Your task to perform on an android device: Open a new Chrome window Image 0: 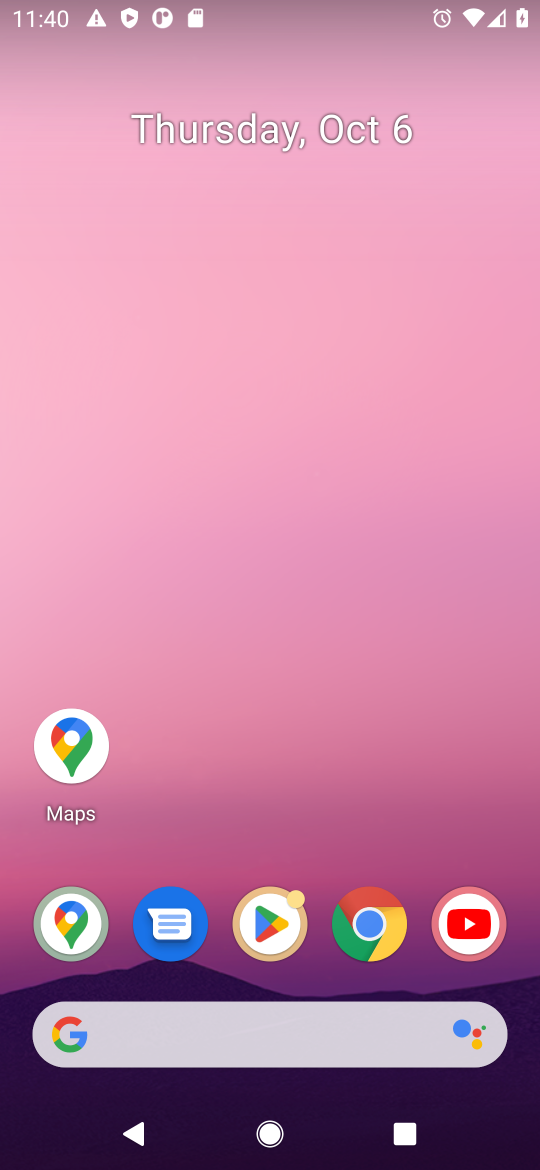
Step 0: click (362, 925)
Your task to perform on an android device: Open a new Chrome window Image 1: 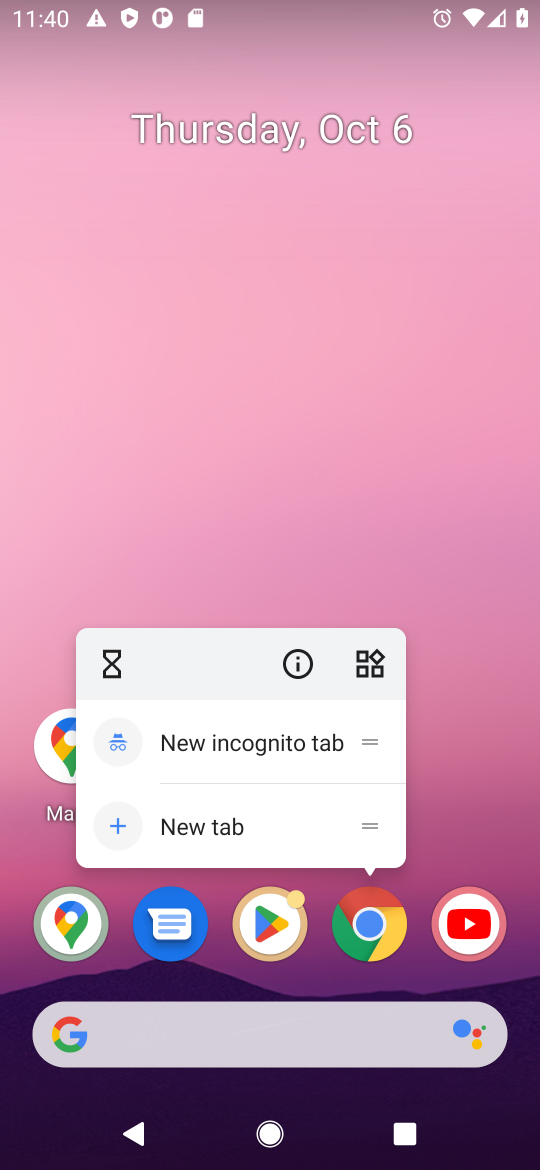
Step 1: click (373, 918)
Your task to perform on an android device: Open a new Chrome window Image 2: 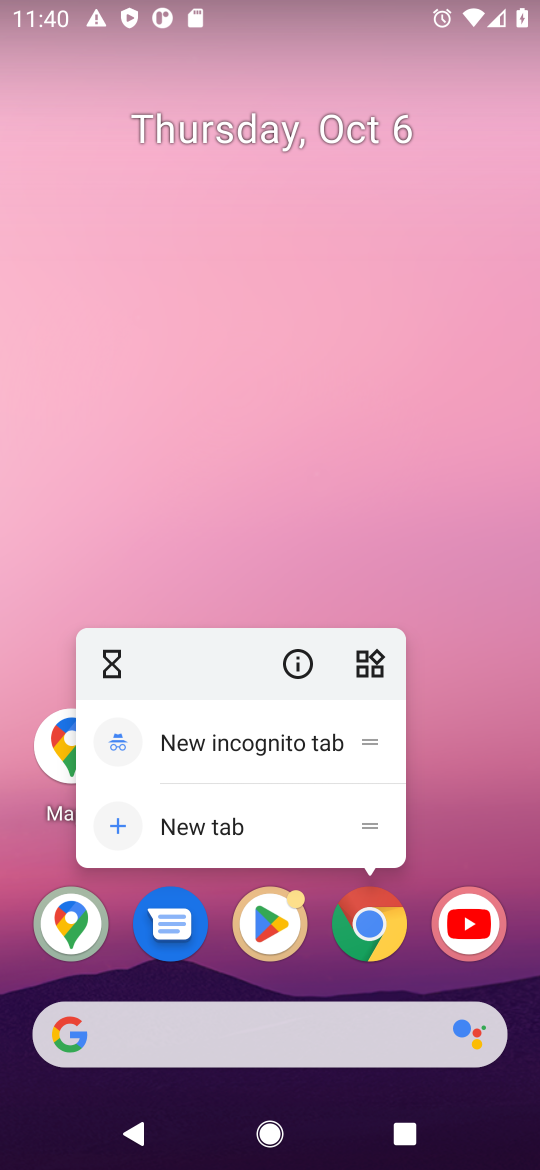
Step 2: click (373, 918)
Your task to perform on an android device: Open a new Chrome window Image 3: 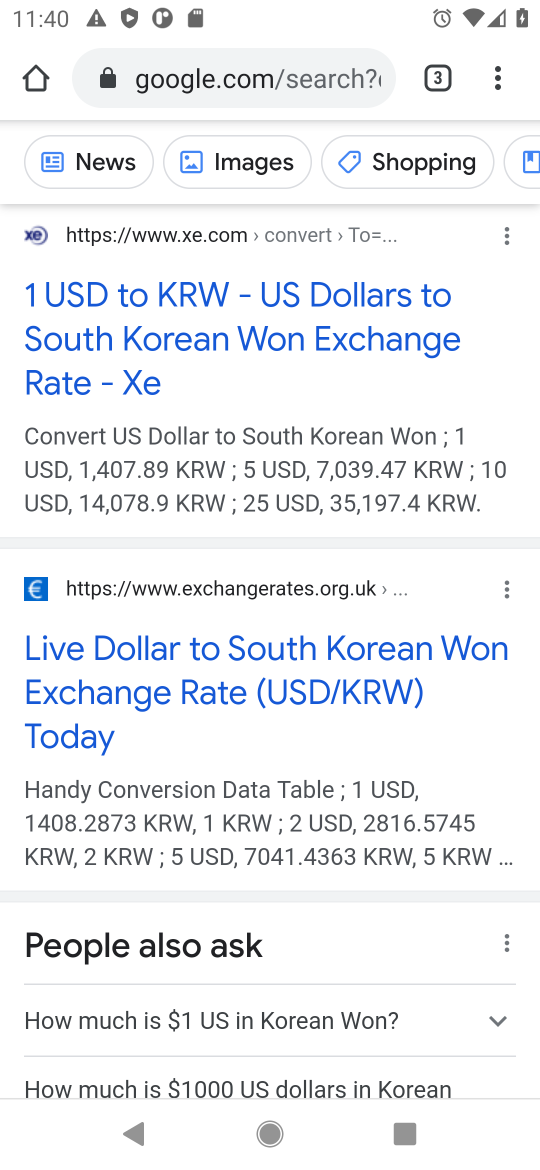
Step 3: task complete